Your task to perform on an android device: Open the Play Movies app and select the watchlist tab. Image 0: 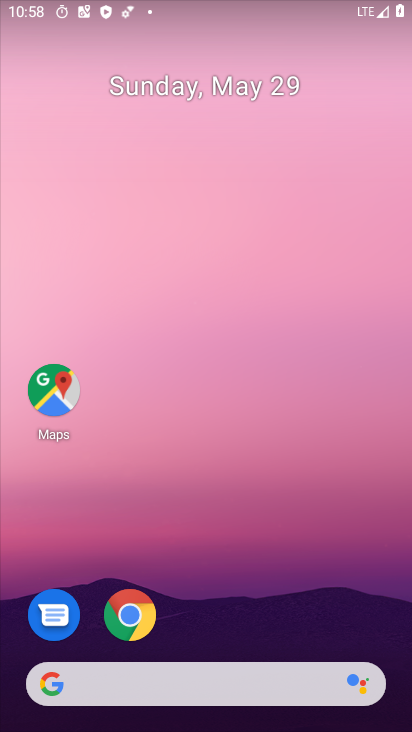
Step 0: drag from (345, 642) to (337, 274)
Your task to perform on an android device: Open the Play Movies app and select the watchlist tab. Image 1: 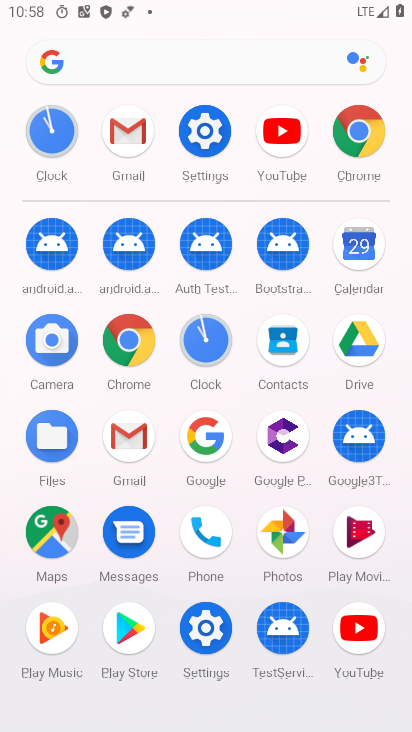
Step 1: click (369, 542)
Your task to perform on an android device: Open the Play Movies app and select the watchlist tab. Image 2: 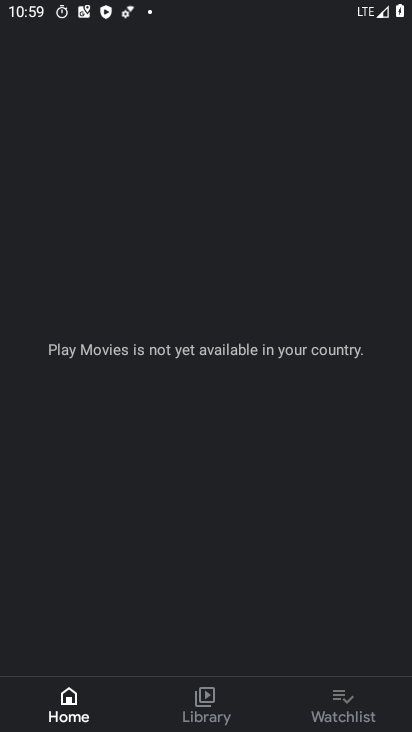
Step 2: click (342, 716)
Your task to perform on an android device: Open the Play Movies app and select the watchlist tab. Image 3: 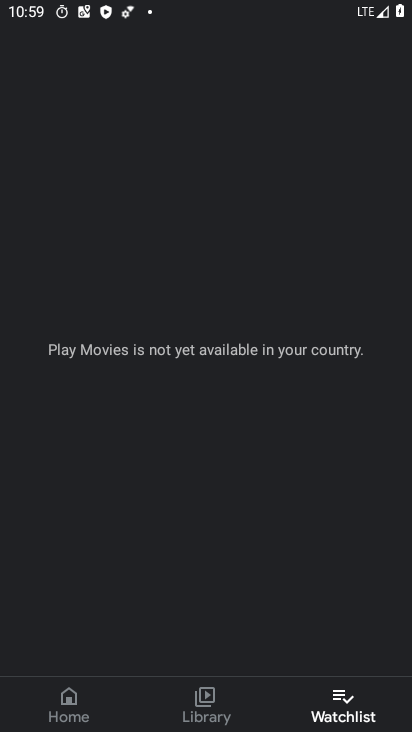
Step 3: task complete